Your task to perform on an android device: toggle sleep mode Image 0: 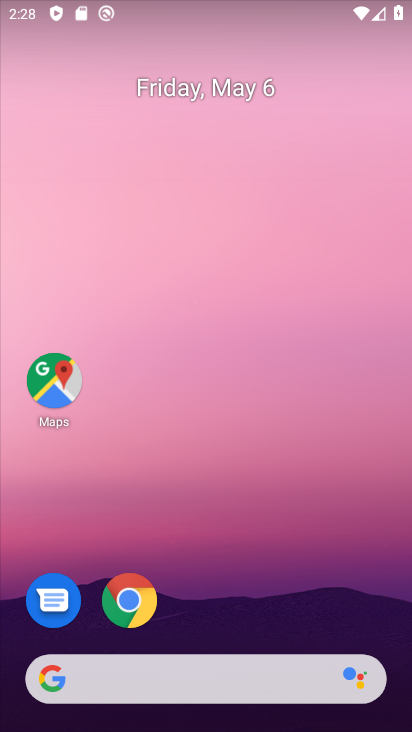
Step 0: drag from (235, 603) to (245, 170)
Your task to perform on an android device: toggle sleep mode Image 1: 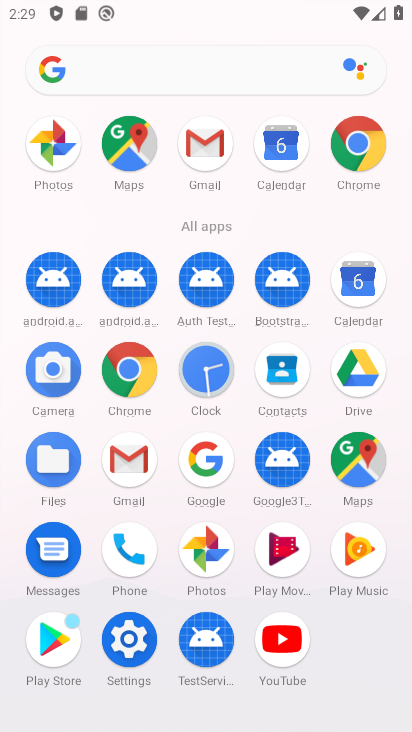
Step 1: click (130, 623)
Your task to perform on an android device: toggle sleep mode Image 2: 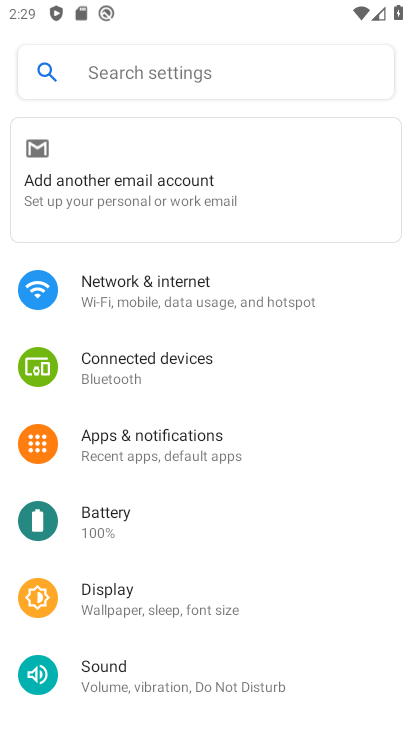
Step 2: drag from (201, 612) to (209, 552)
Your task to perform on an android device: toggle sleep mode Image 3: 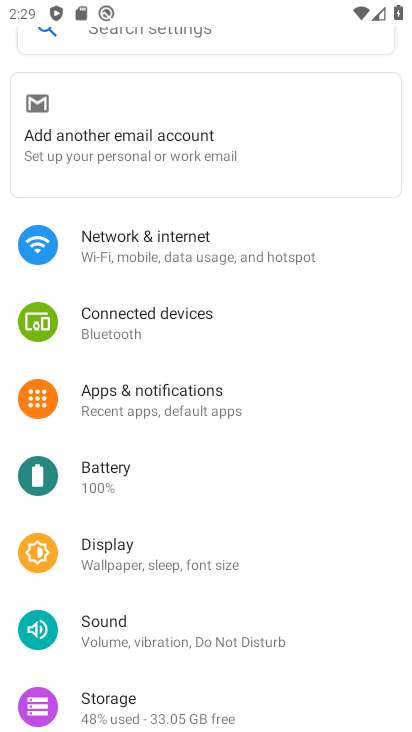
Step 3: click (209, 552)
Your task to perform on an android device: toggle sleep mode Image 4: 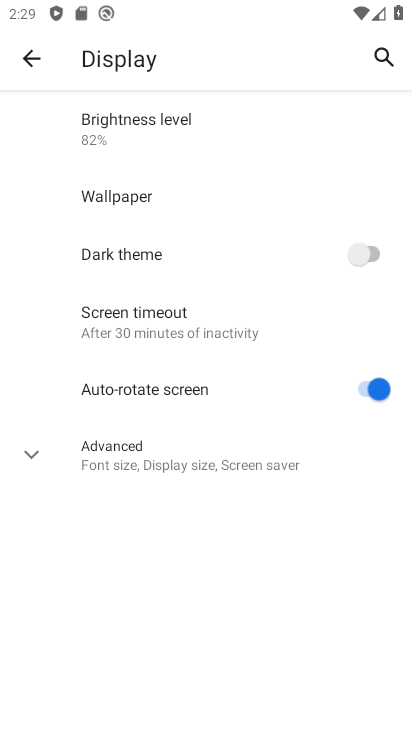
Step 4: click (210, 466)
Your task to perform on an android device: toggle sleep mode Image 5: 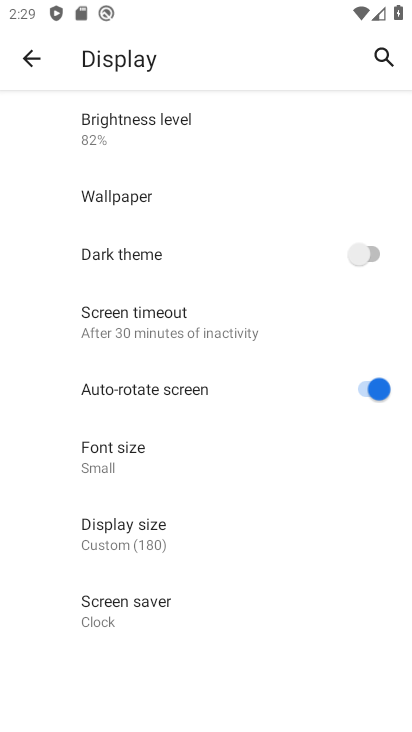
Step 5: task complete